Your task to perform on an android device: check the backup settings in the google photos Image 0: 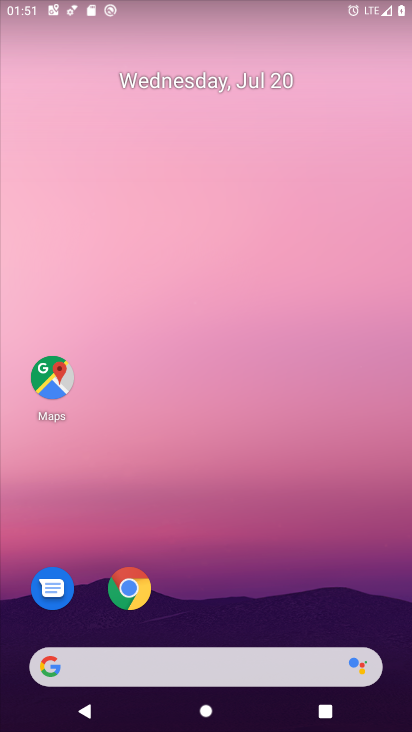
Step 0: drag from (285, 636) to (277, 234)
Your task to perform on an android device: check the backup settings in the google photos Image 1: 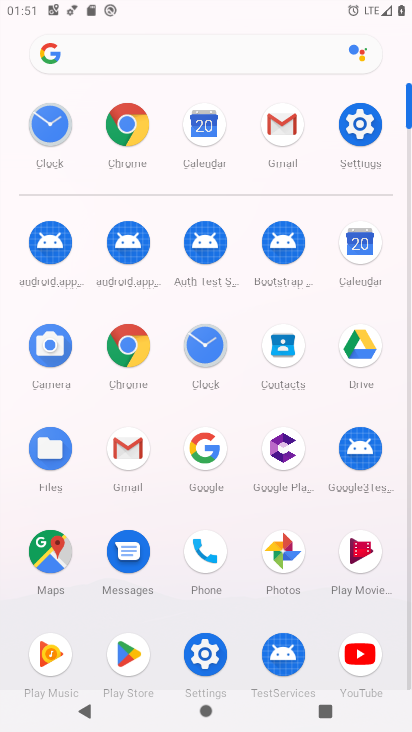
Step 1: click (276, 542)
Your task to perform on an android device: check the backup settings in the google photos Image 2: 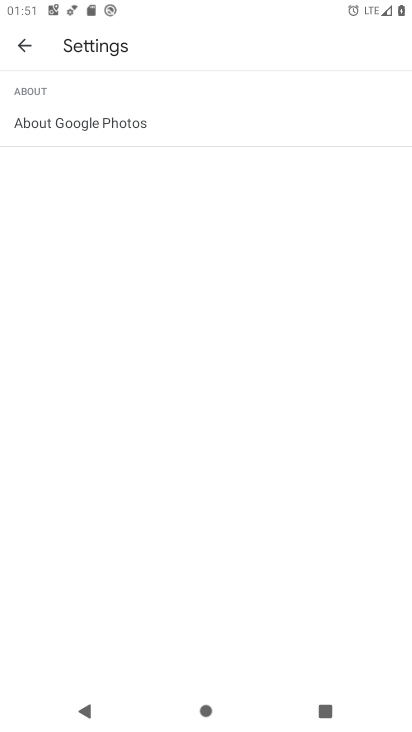
Step 2: click (26, 48)
Your task to perform on an android device: check the backup settings in the google photos Image 3: 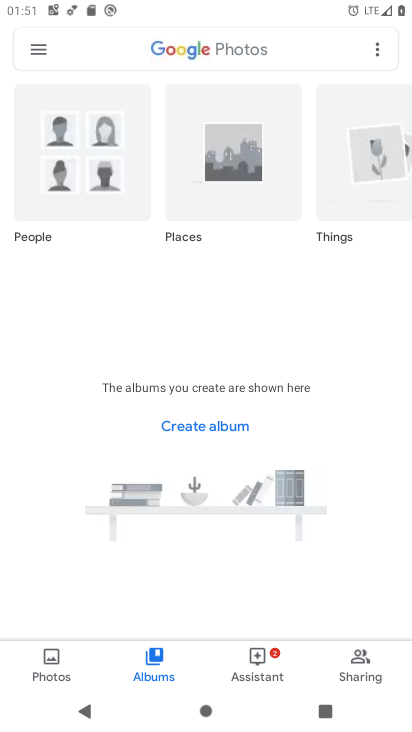
Step 3: click (25, 43)
Your task to perform on an android device: check the backup settings in the google photos Image 4: 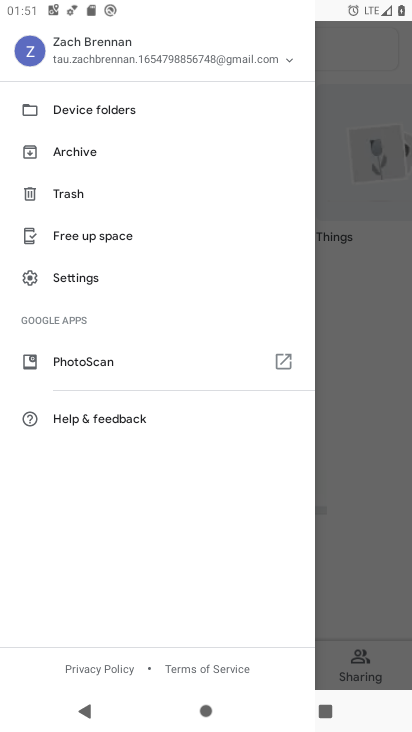
Step 4: click (66, 266)
Your task to perform on an android device: check the backup settings in the google photos Image 5: 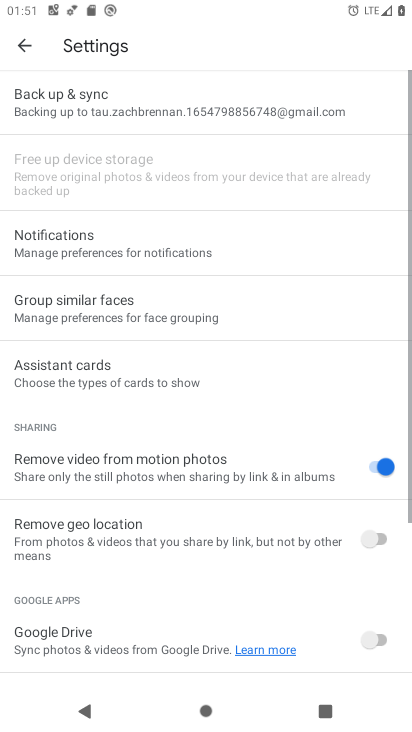
Step 5: click (64, 87)
Your task to perform on an android device: check the backup settings in the google photos Image 6: 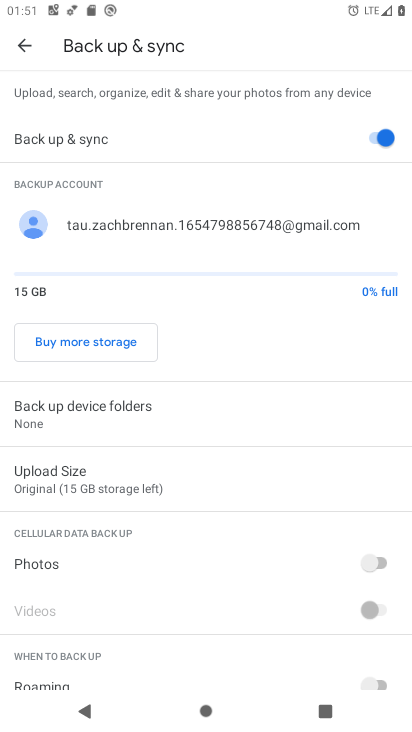
Step 6: task complete